Your task to perform on an android device: Add "razer nari" to the cart on costco, then select checkout. Image 0: 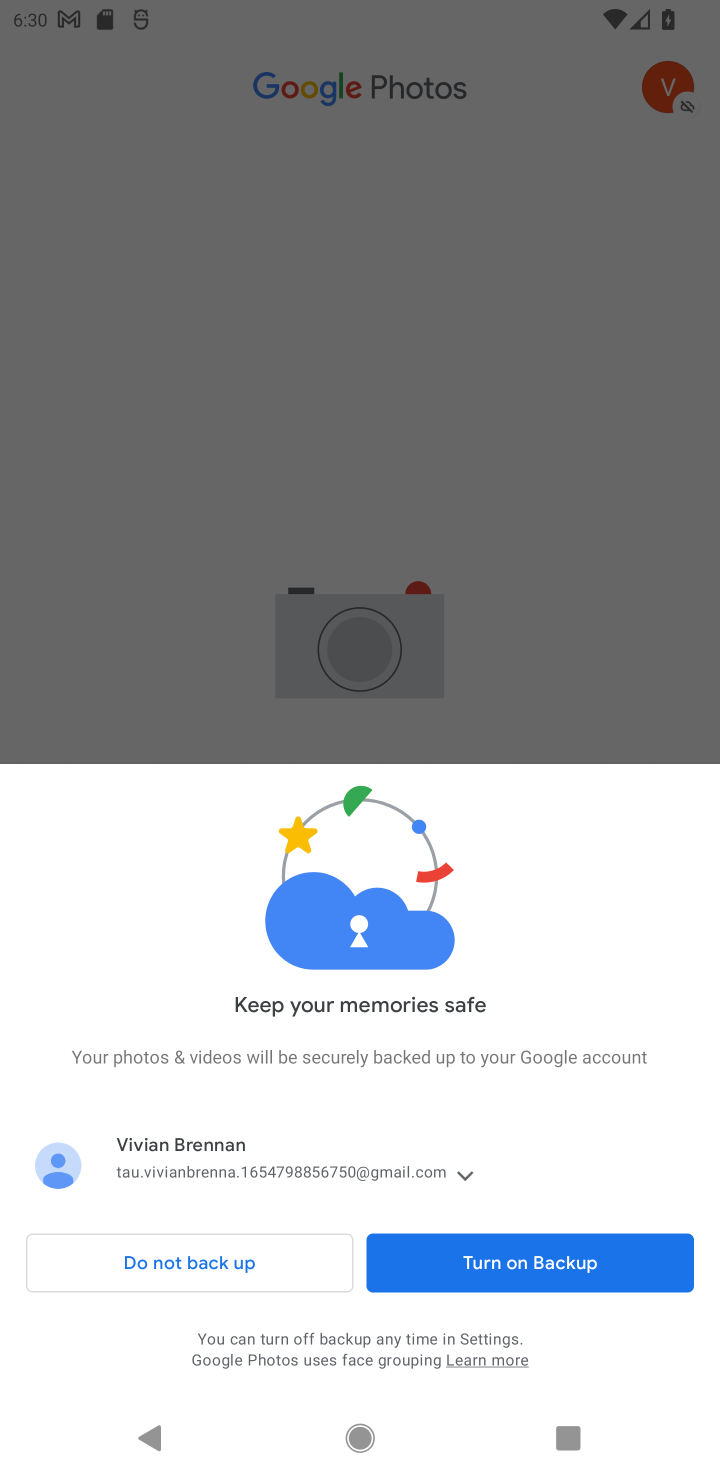
Step 0: press home button
Your task to perform on an android device: Add "razer nari" to the cart on costco, then select checkout. Image 1: 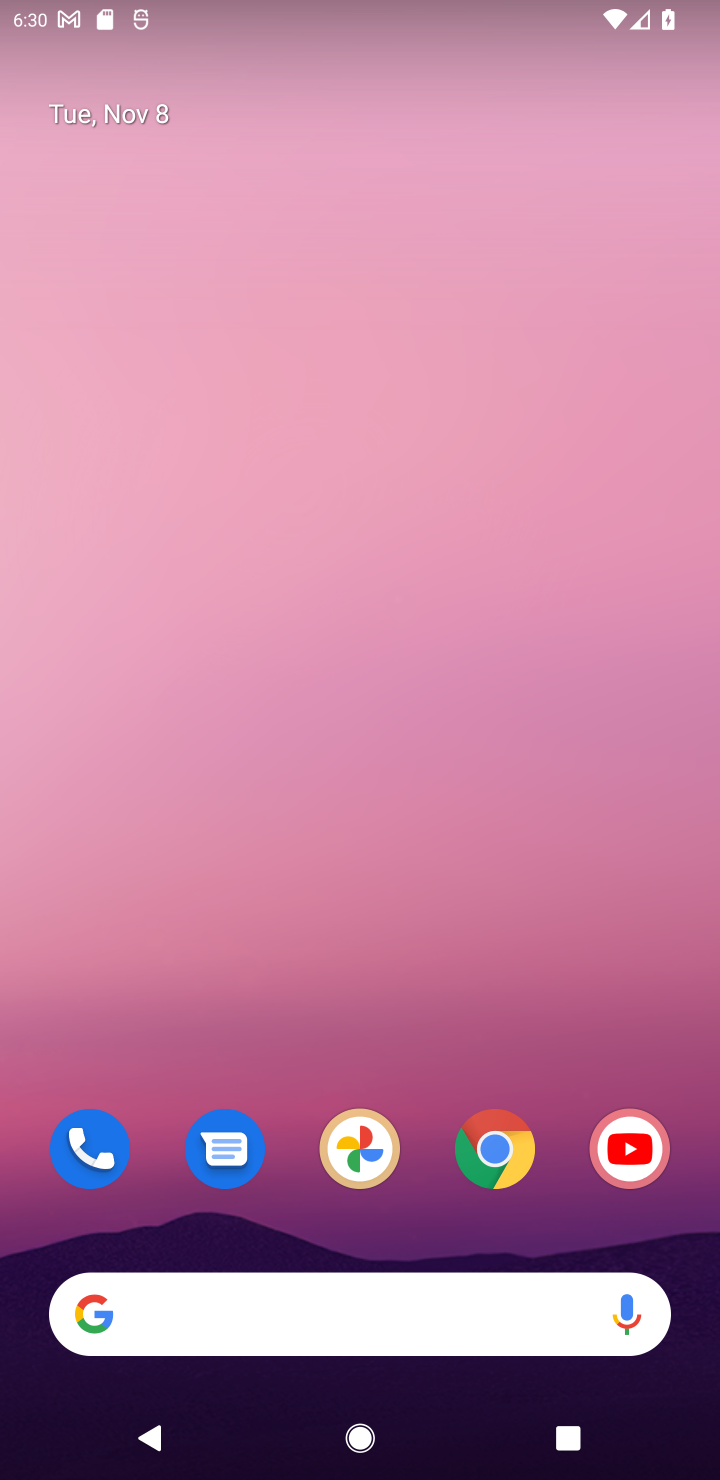
Step 1: click (501, 1144)
Your task to perform on an android device: Add "razer nari" to the cart on costco, then select checkout. Image 2: 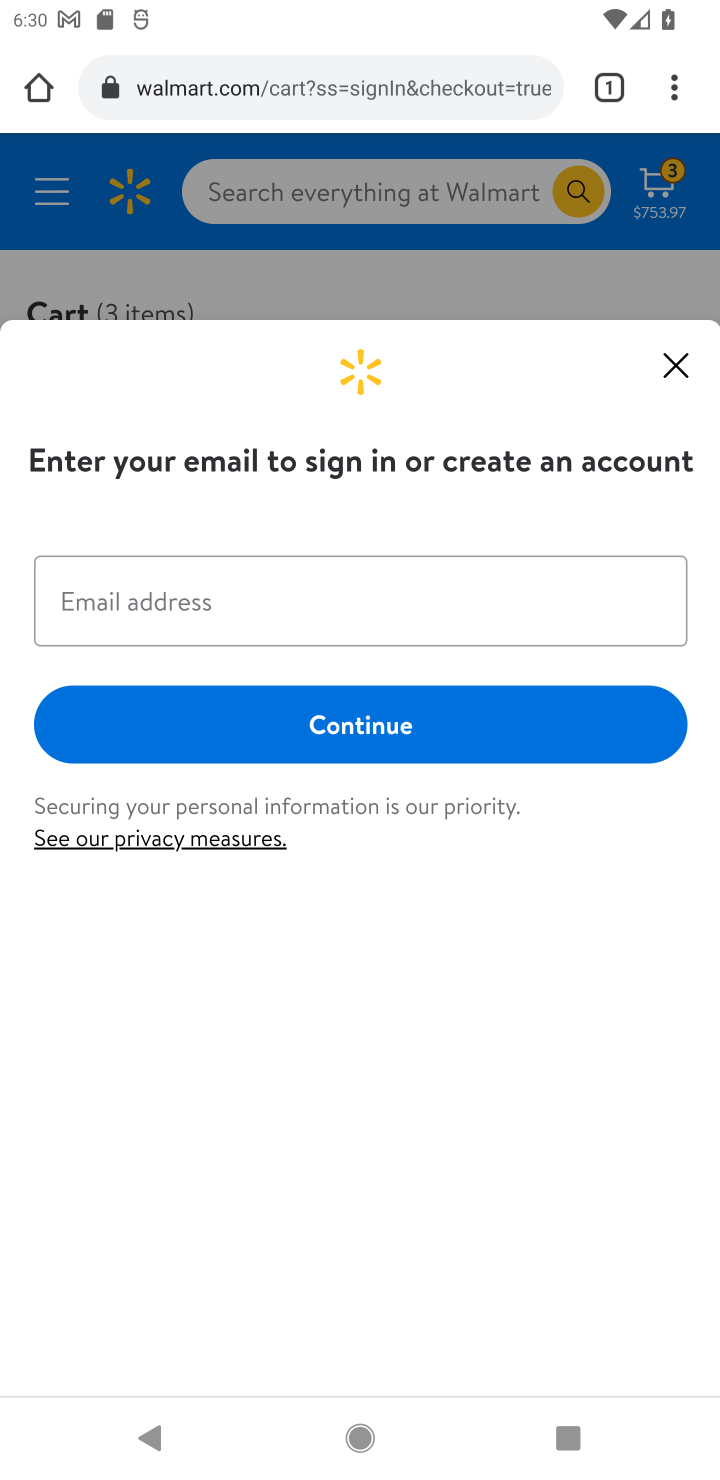
Step 2: click (487, 79)
Your task to perform on an android device: Add "razer nari" to the cart on costco, then select checkout. Image 3: 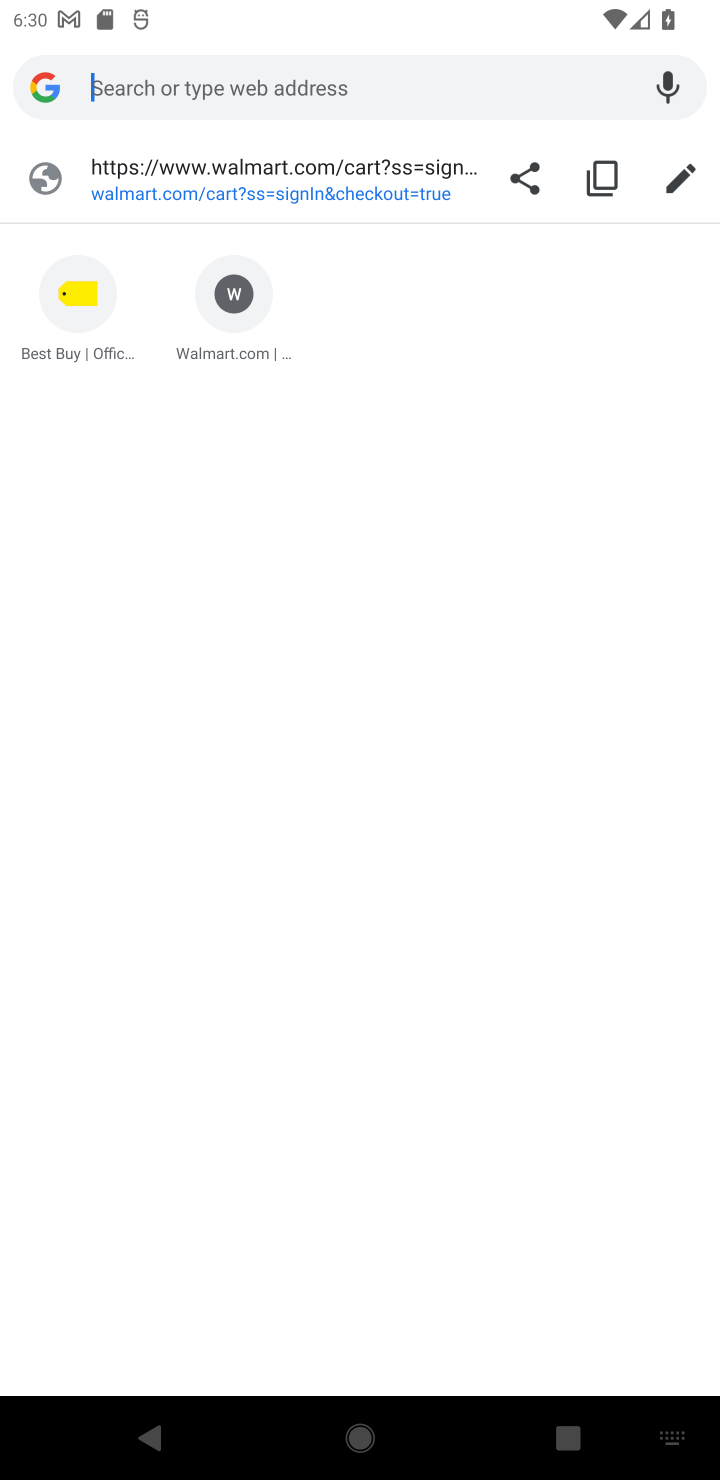
Step 3: press enter
Your task to perform on an android device: Add "razer nari" to the cart on costco, then select checkout. Image 4: 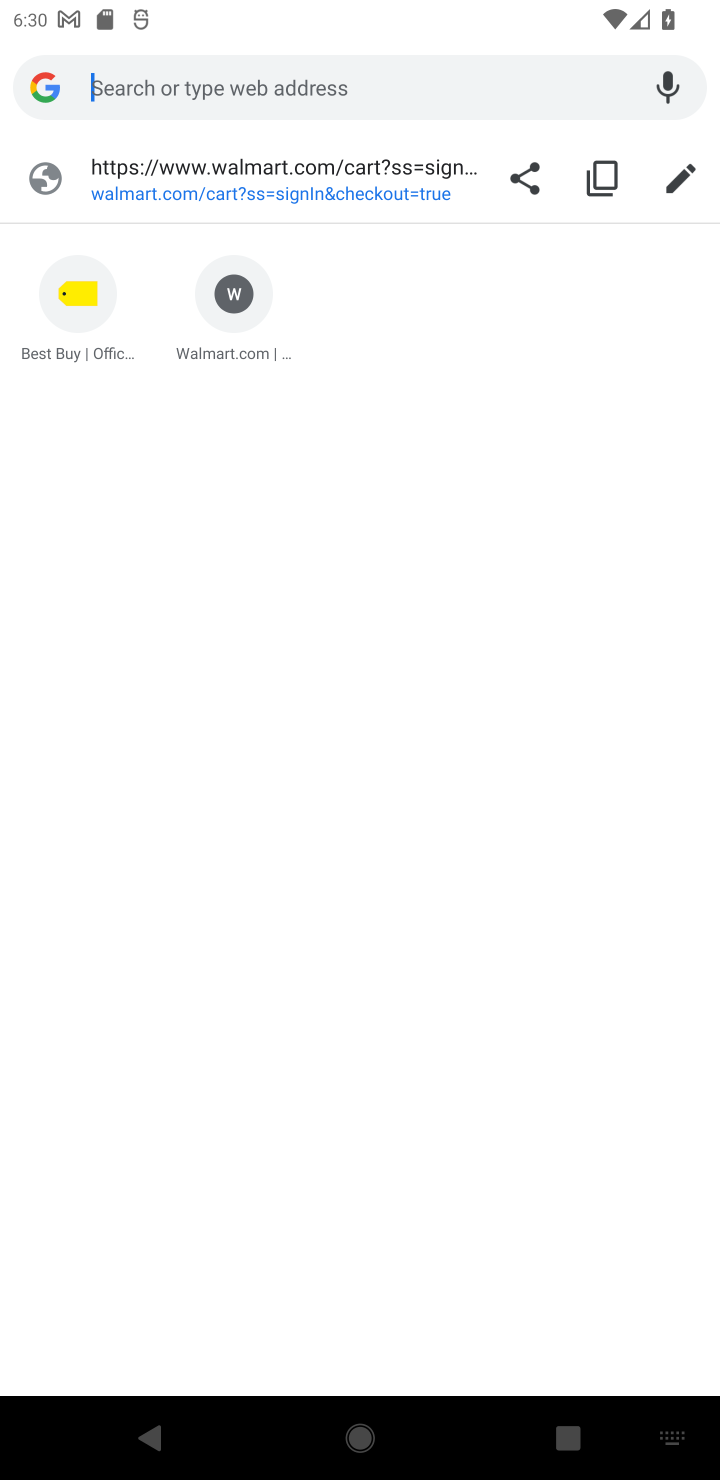
Step 4: type "costco"
Your task to perform on an android device: Add "razer nari" to the cart on costco, then select checkout. Image 5: 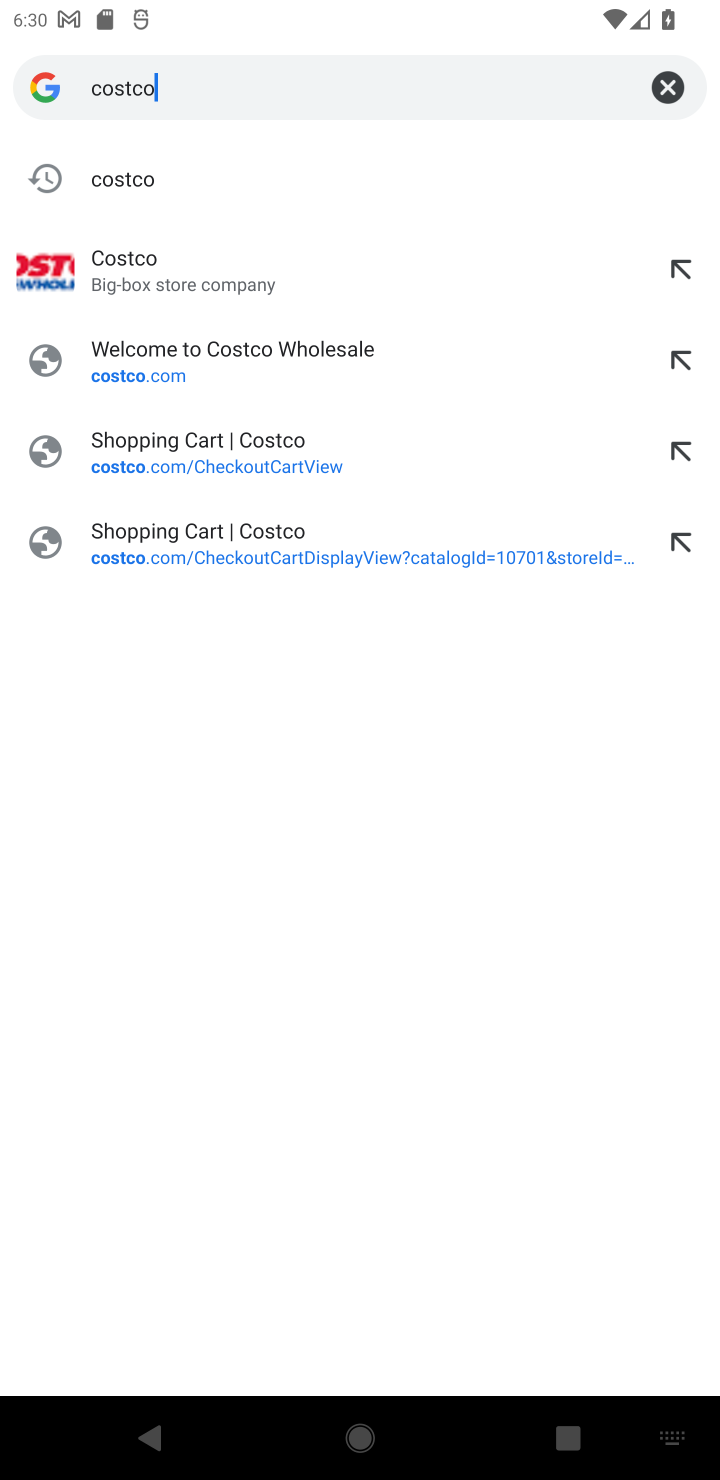
Step 5: click (200, 277)
Your task to perform on an android device: Add "razer nari" to the cart on costco, then select checkout. Image 6: 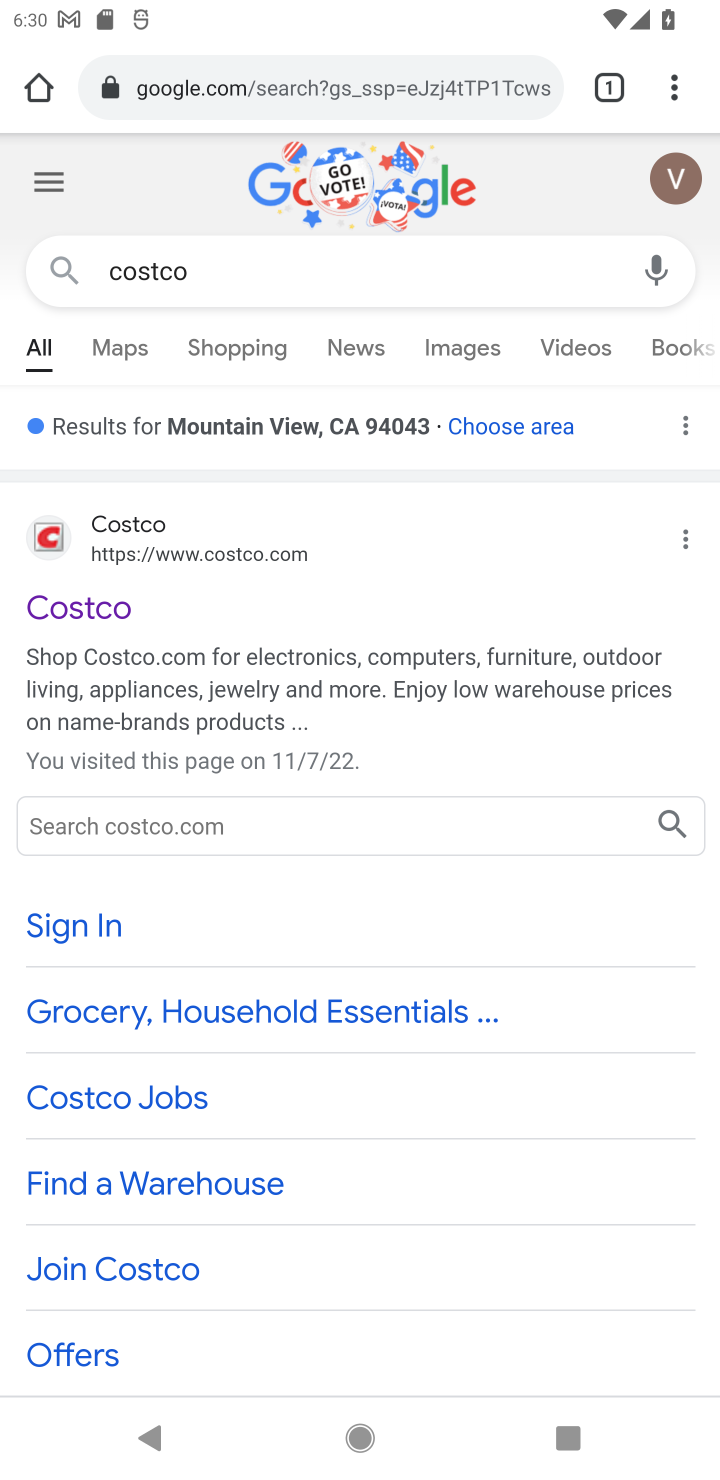
Step 6: click (207, 551)
Your task to perform on an android device: Add "razer nari" to the cart on costco, then select checkout. Image 7: 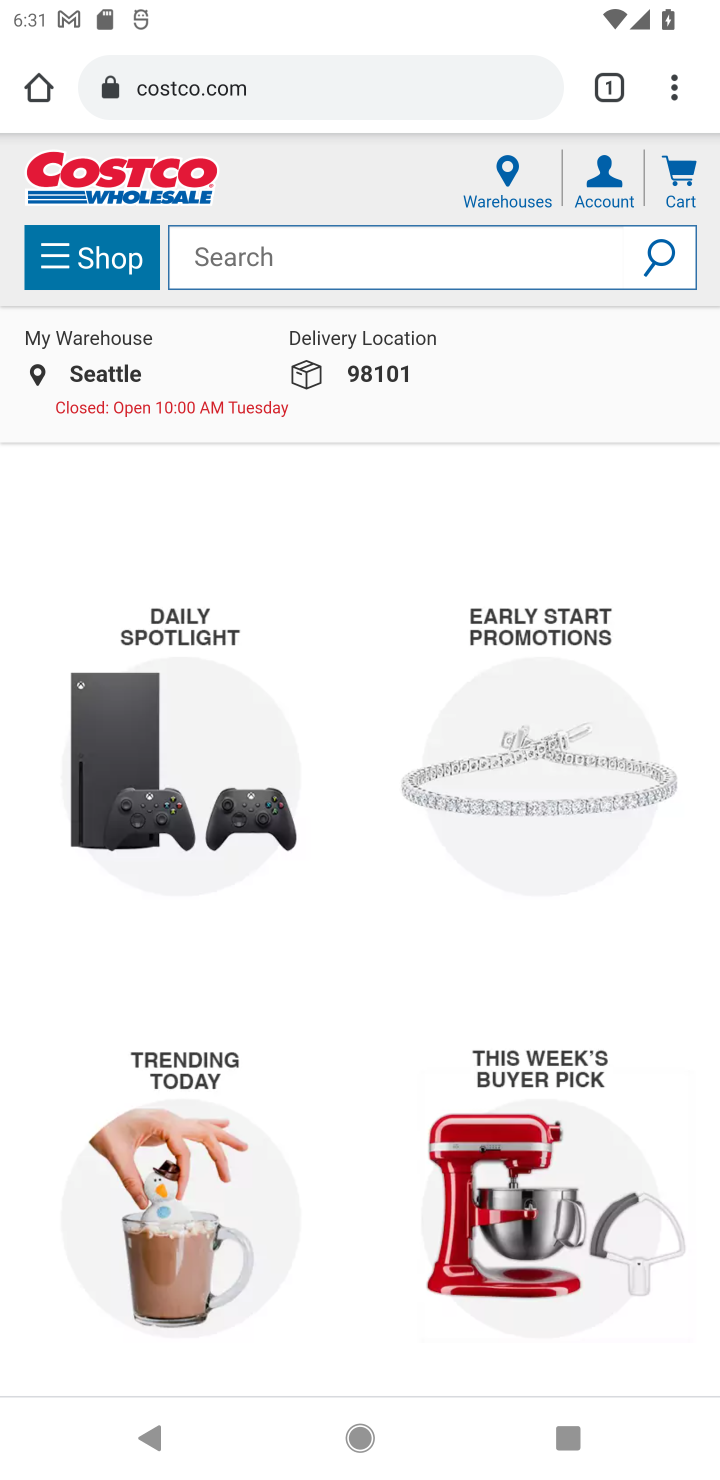
Step 7: click (395, 252)
Your task to perform on an android device: Add "razer nari" to the cart on costco, then select checkout. Image 8: 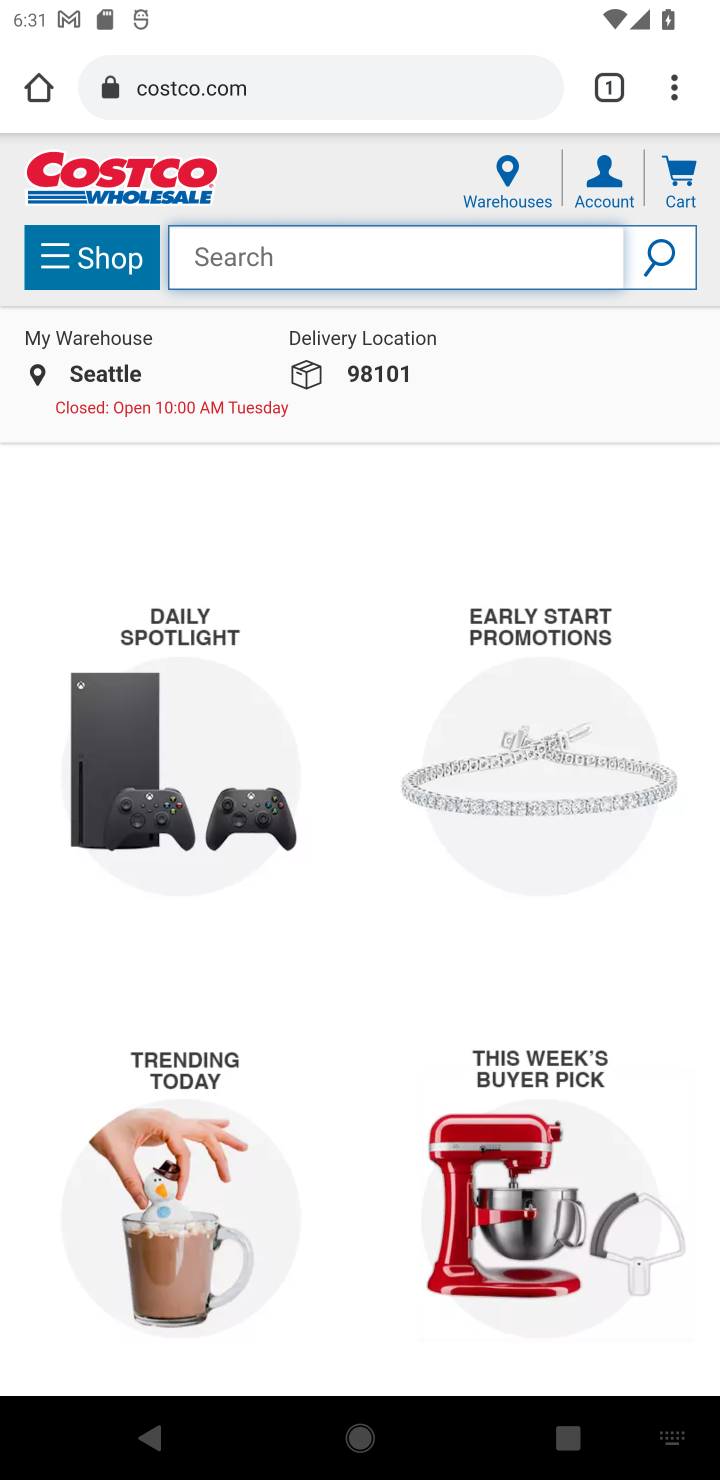
Step 8: press enter
Your task to perform on an android device: Add "razer nari" to the cart on costco, then select checkout. Image 9: 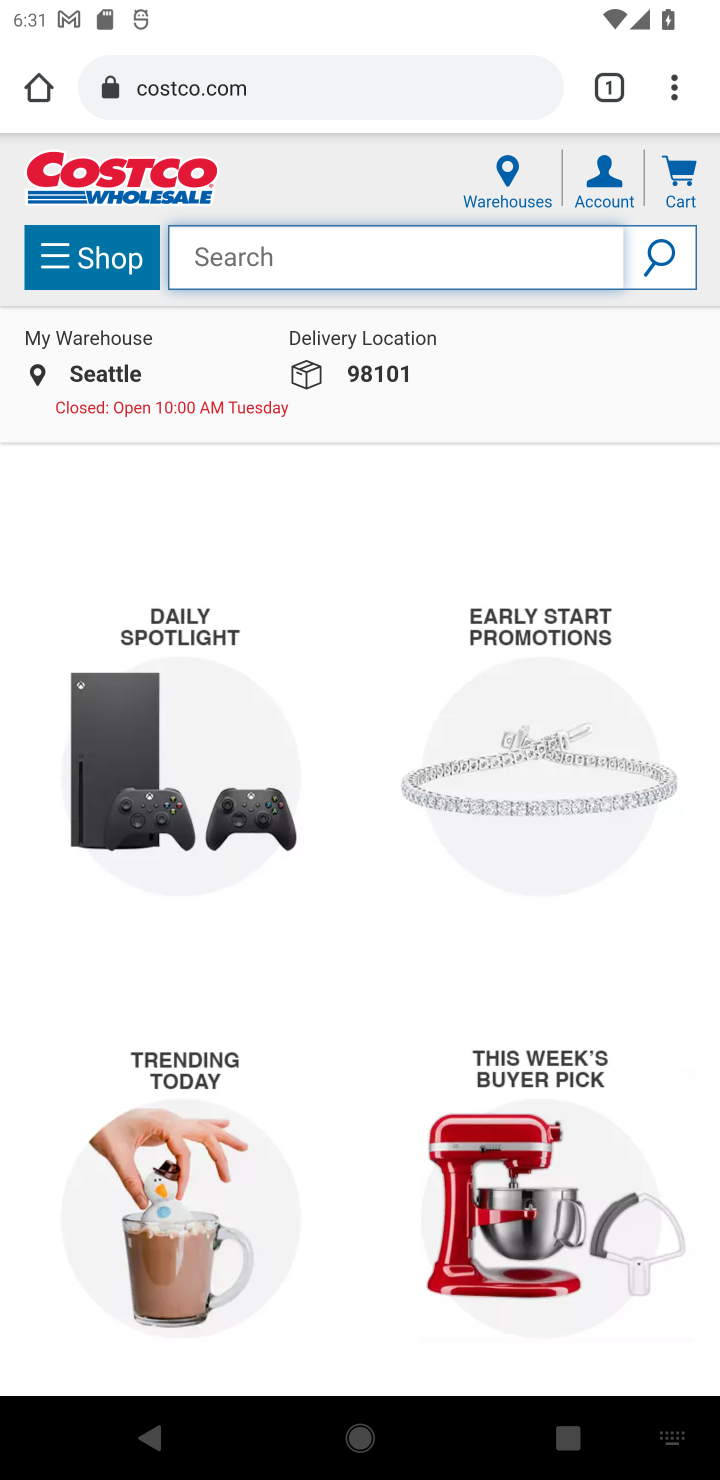
Step 9: type "razer nari"
Your task to perform on an android device: Add "razer nari" to the cart on costco, then select checkout. Image 10: 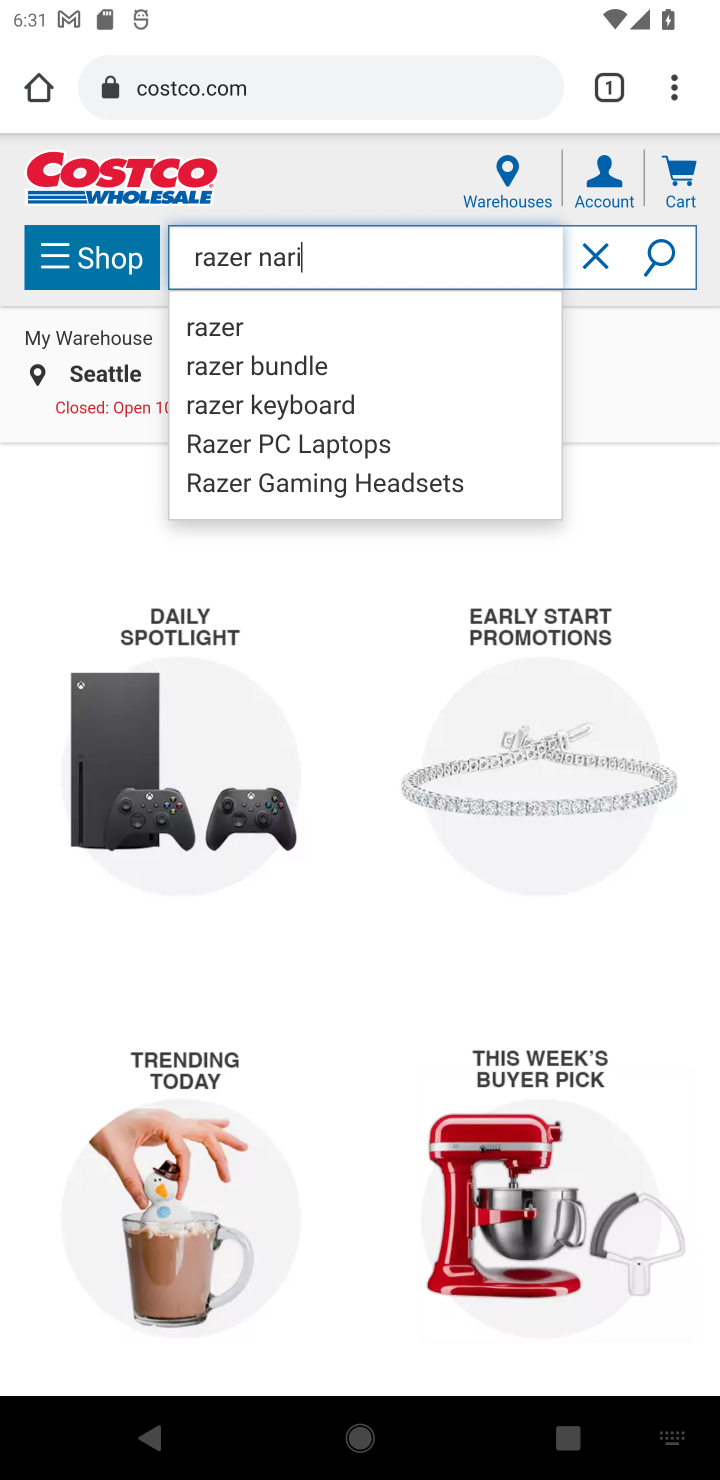
Step 10: click (650, 476)
Your task to perform on an android device: Add "razer nari" to the cart on costco, then select checkout. Image 11: 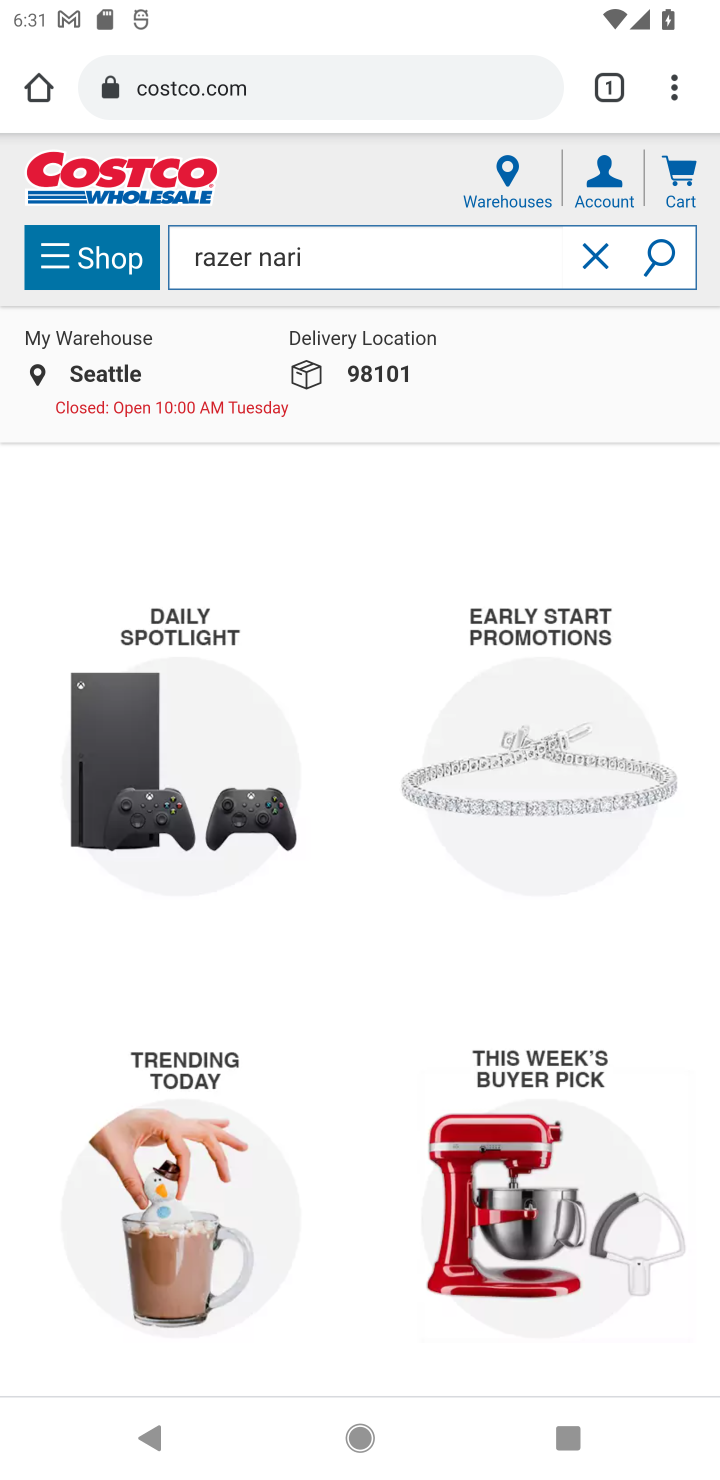
Step 11: click (636, 435)
Your task to perform on an android device: Add "razer nari" to the cart on costco, then select checkout. Image 12: 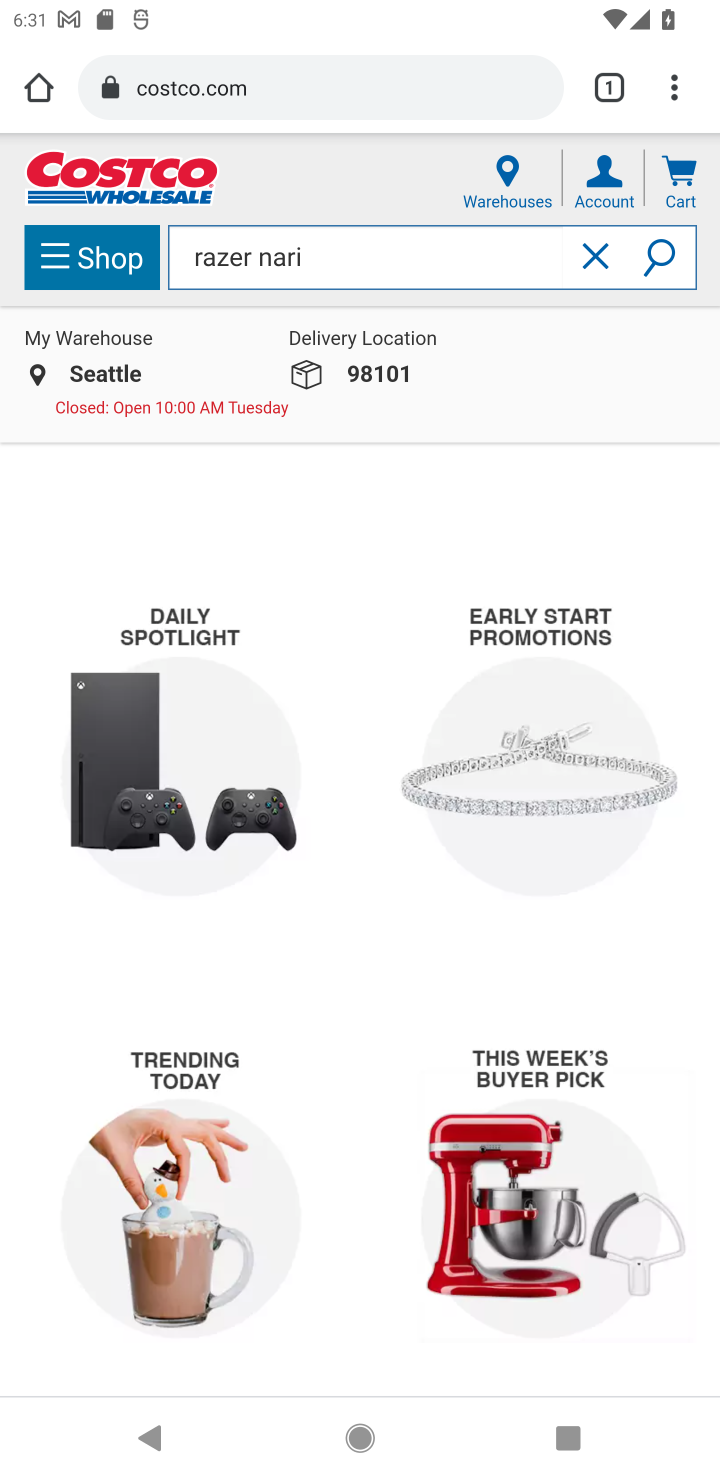
Step 12: task complete